Your task to perform on an android device: check out phone information Image 0: 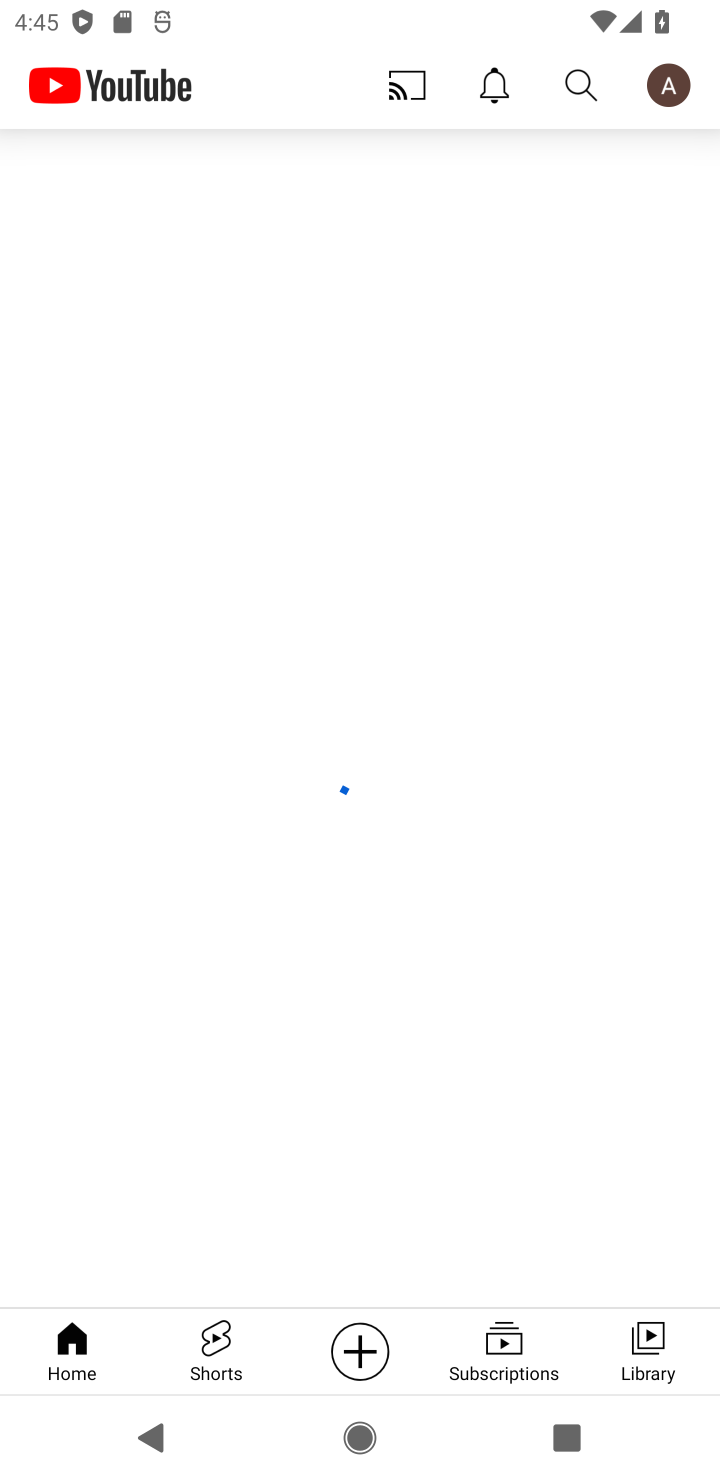
Step 0: press home button
Your task to perform on an android device: check out phone information Image 1: 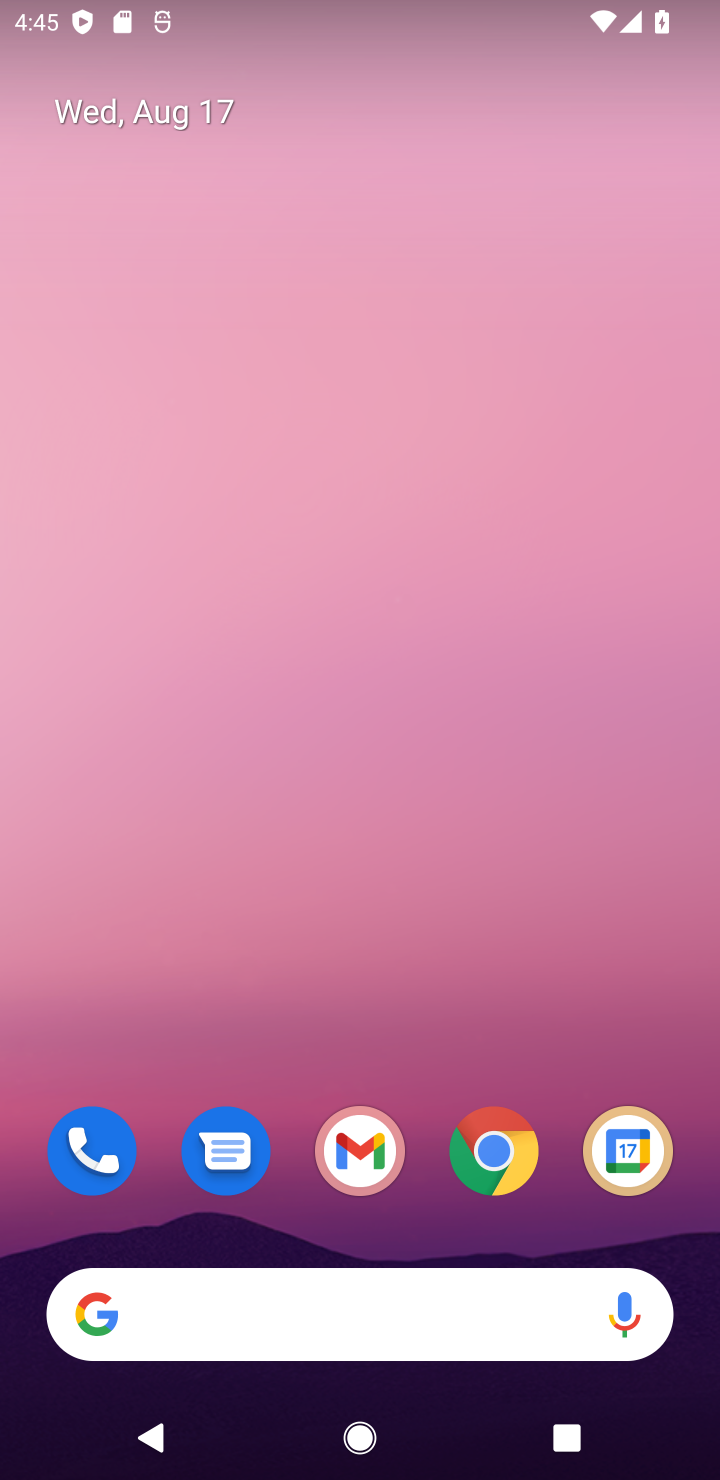
Step 1: drag from (435, 1218) to (415, 0)
Your task to perform on an android device: check out phone information Image 2: 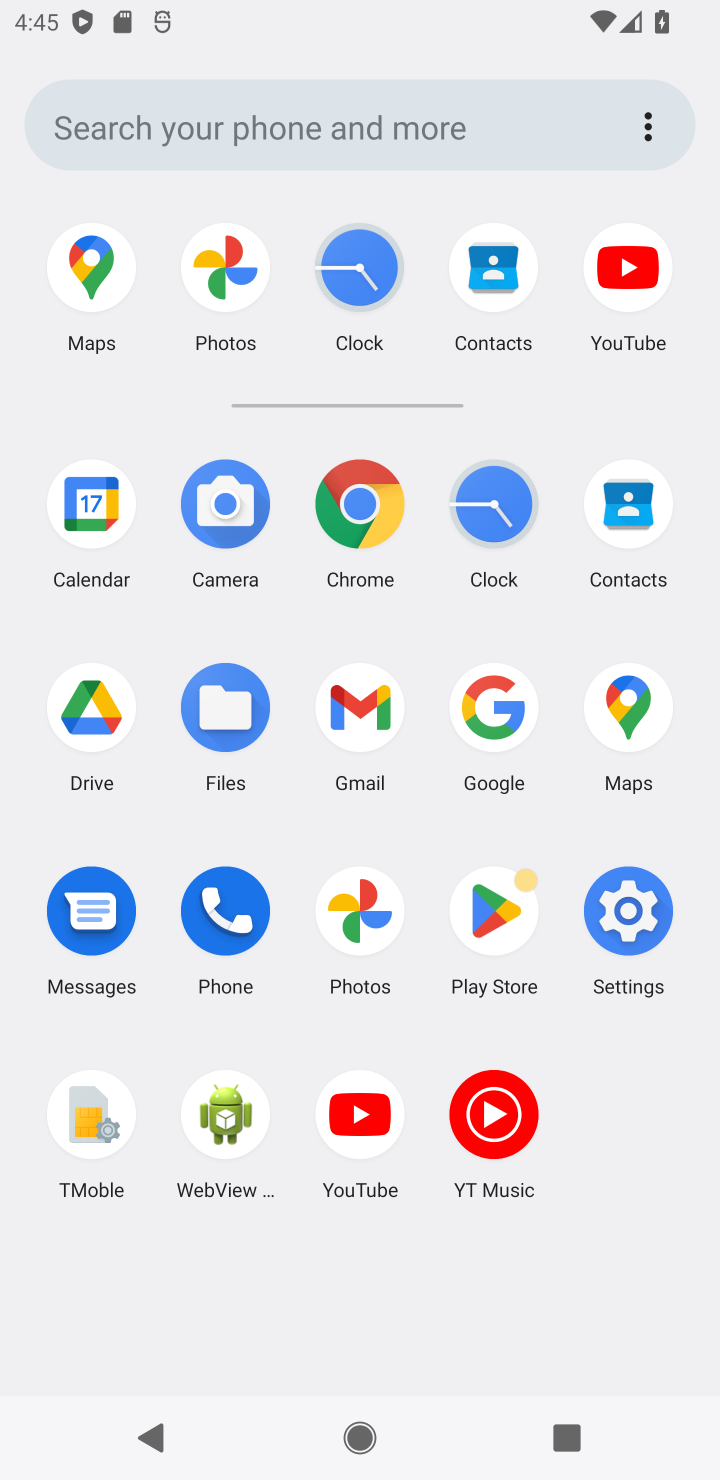
Step 2: click (645, 947)
Your task to perform on an android device: check out phone information Image 3: 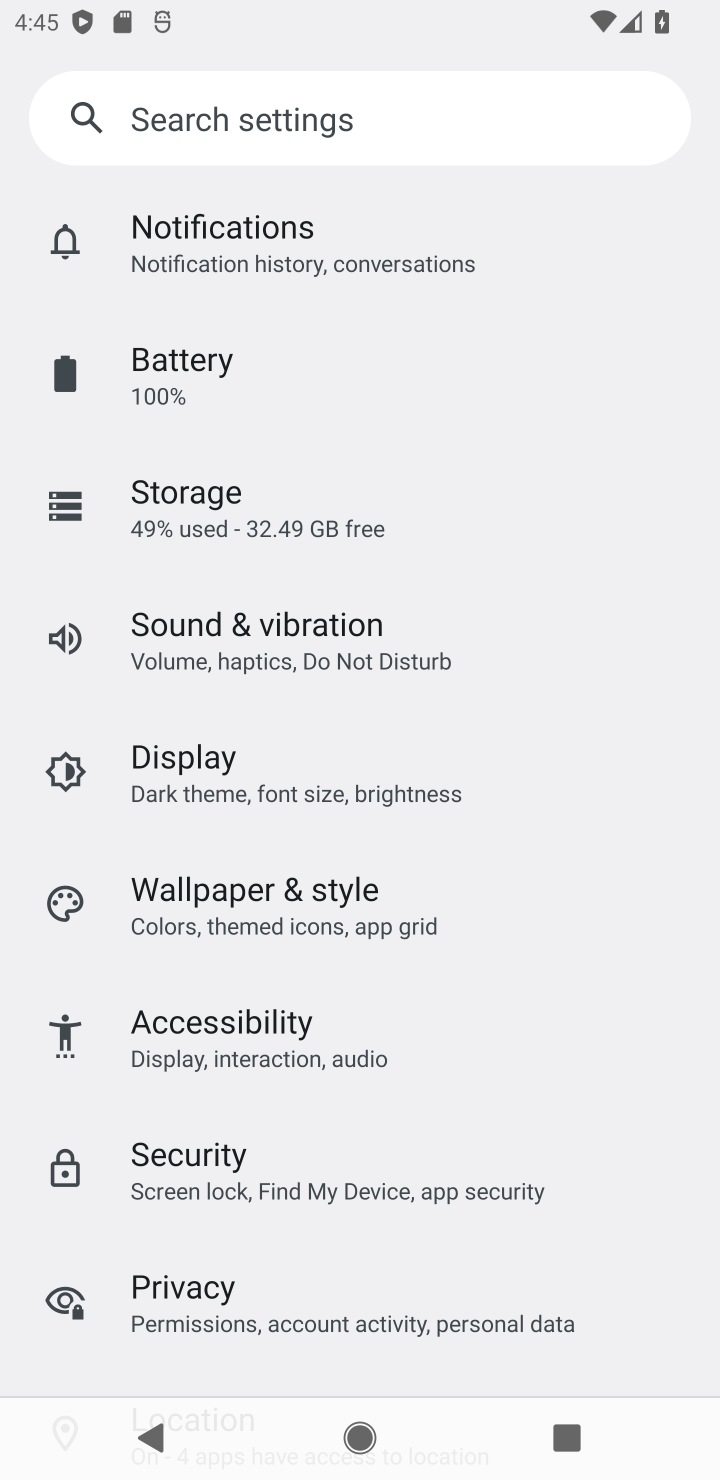
Step 3: task complete